Your task to perform on an android device: Go to Amazon Image 0: 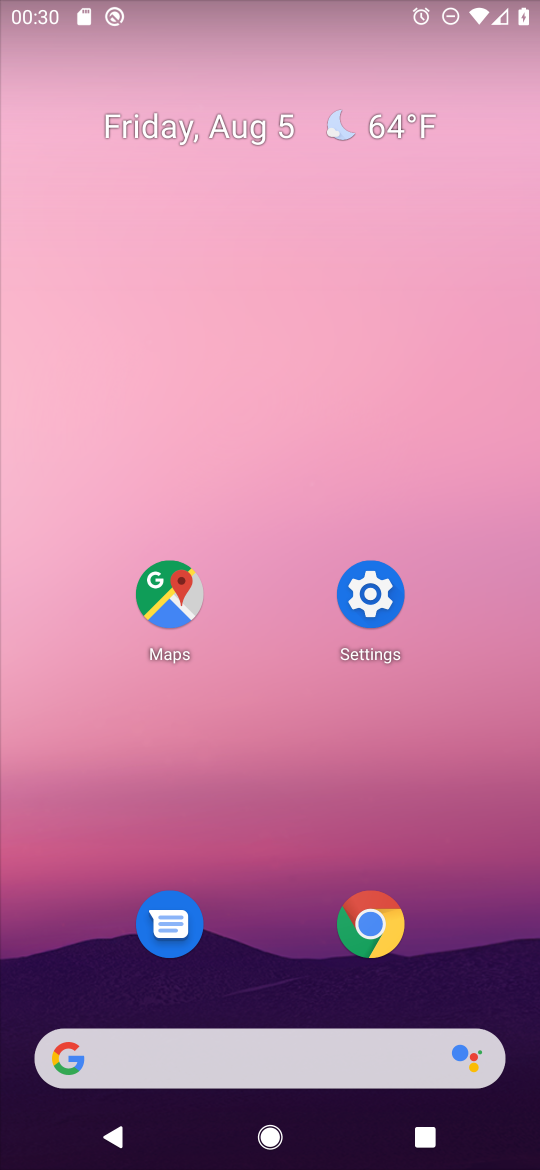
Step 0: click (375, 920)
Your task to perform on an android device: Go to Amazon Image 1: 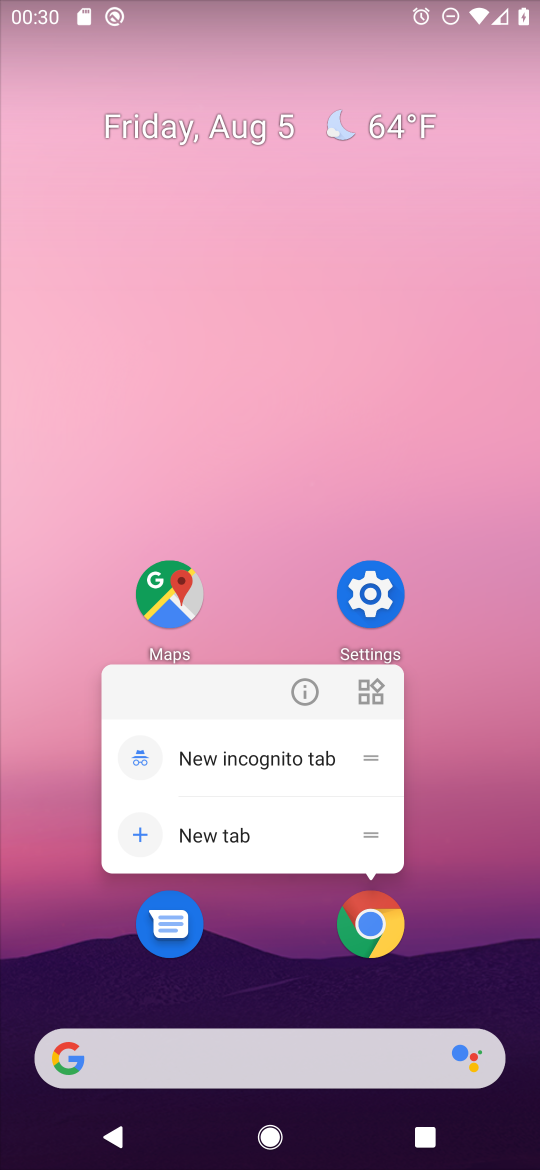
Step 1: click (375, 919)
Your task to perform on an android device: Go to Amazon Image 2: 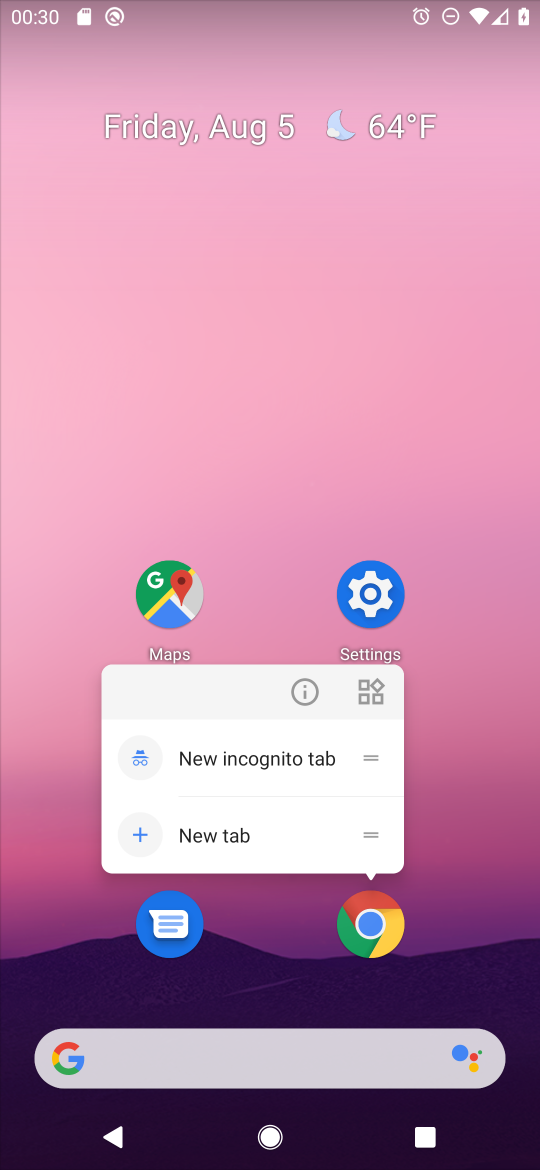
Step 2: click (375, 919)
Your task to perform on an android device: Go to Amazon Image 3: 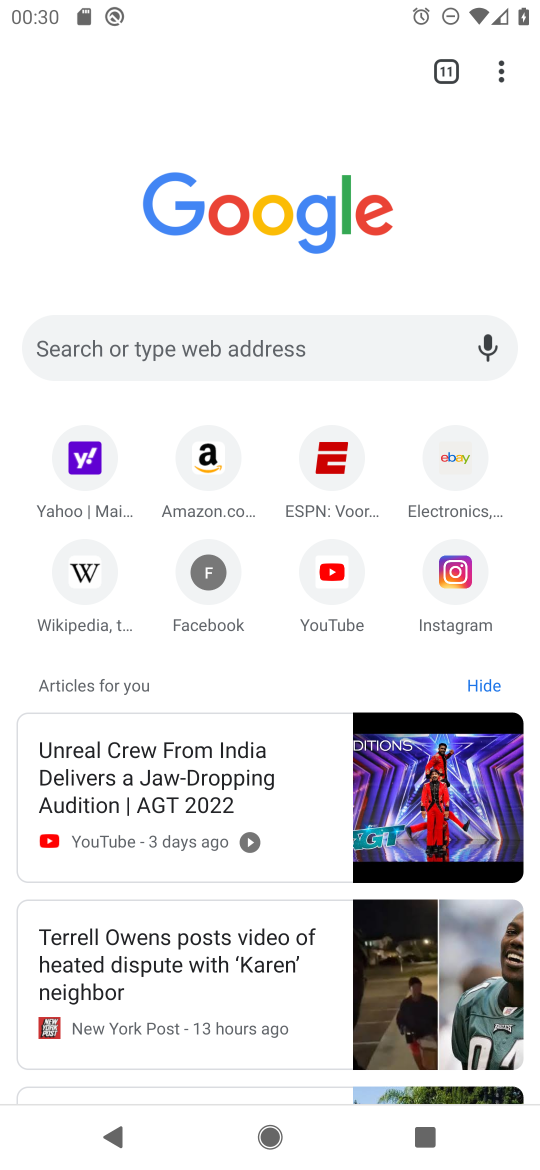
Step 3: click (195, 459)
Your task to perform on an android device: Go to Amazon Image 4: 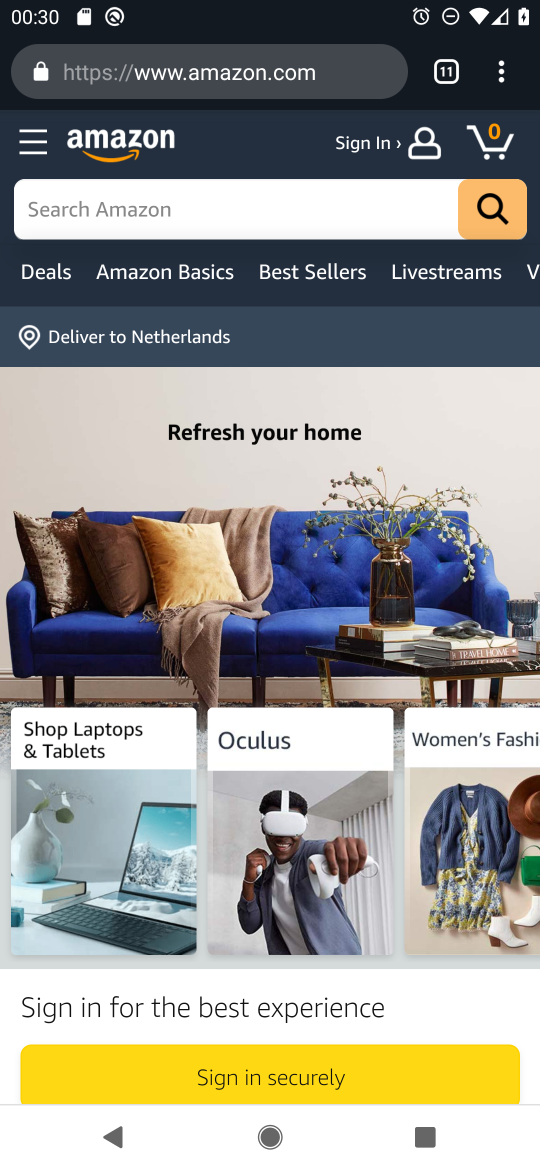
Step 4: task complete